Your task to perform on an android device: Open Yahoo.com Image 0: 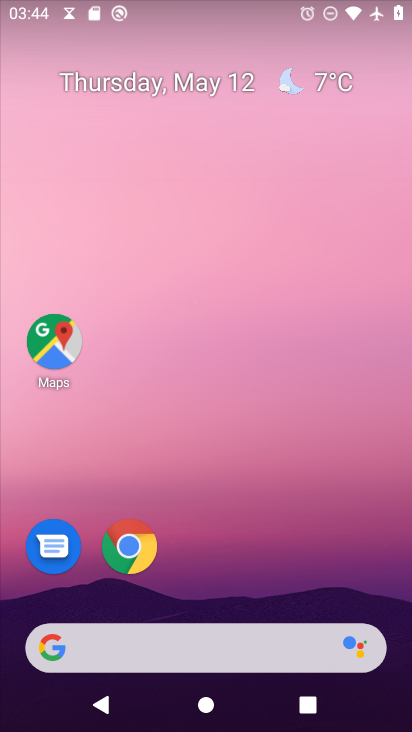
Step 0: drag from (217, 623) to (306, 281)
Your task to perform on an android device: Open Yahoo.com Image 1: 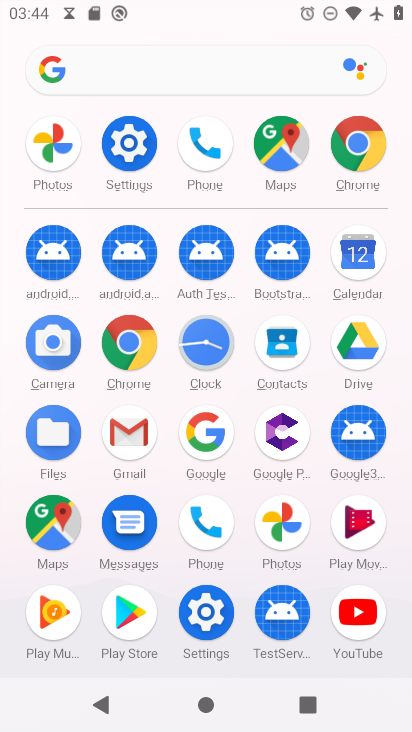
Step 1: click (134, 347)
Your task to perform on an android device: Open Yahoo.com Image 2: 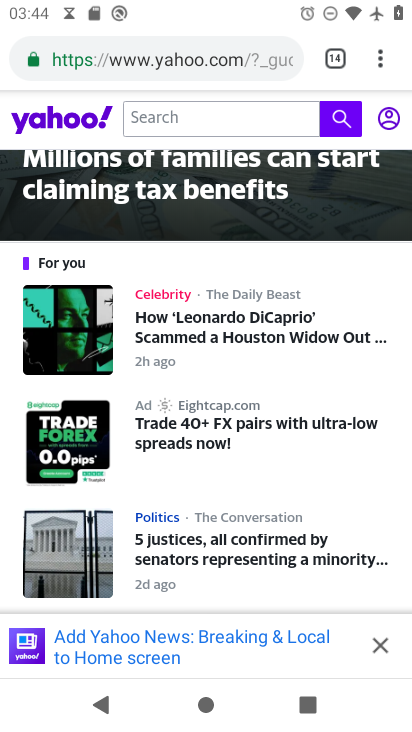
Step 2: task complete